Your task to perform on an android device: Find coffee shops on Maps Image 0: 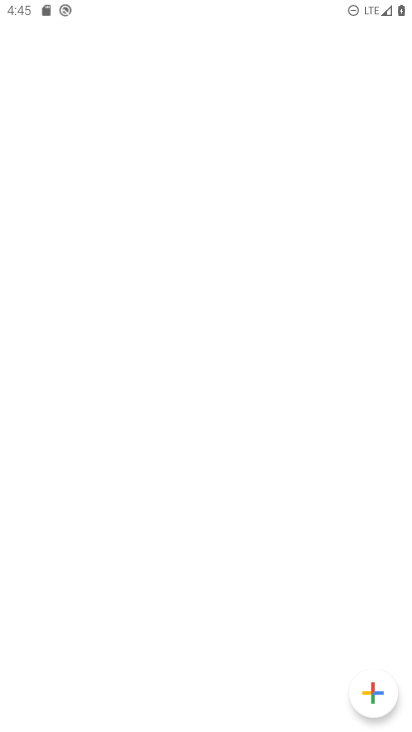
Step 0: drag from (258, 624) to (259, 15)
Your task to perform on an android device: Find coffee shops on Maps Image 1: 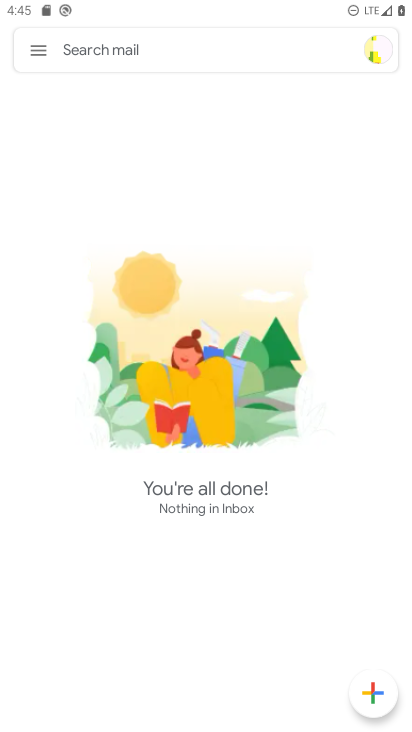
Step 1: press home button
Your task to perform on an android device: Find coffee shops on Maps Image 2: 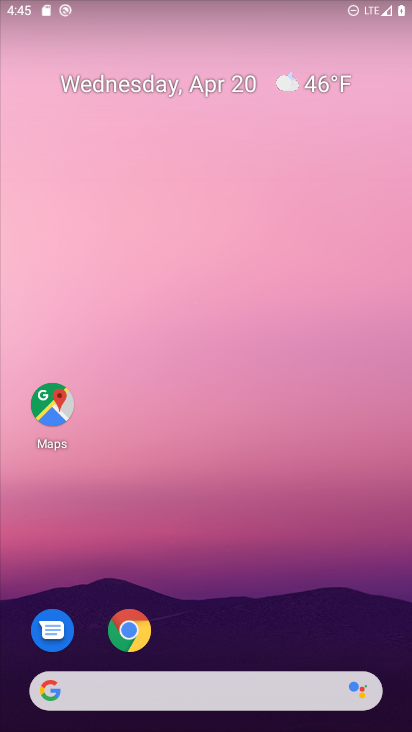
Step 2: drag from (310, 560) to (309, 49)
Your task to perform on an android device: Find coffee shops on Maps Image 3: 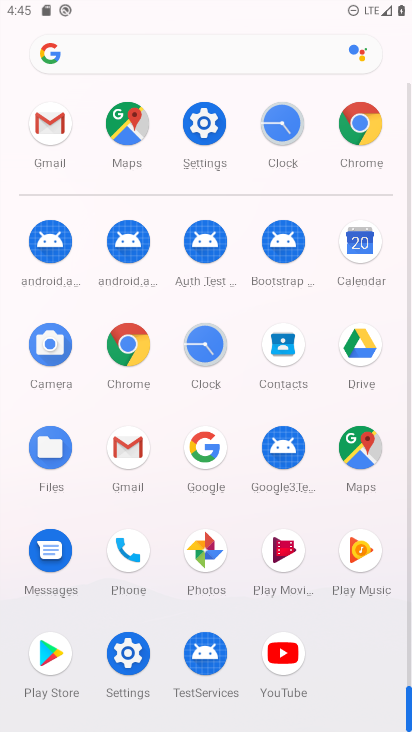
Step 3: click (365, 456)
Your task to perform on an android device: Find coffee shops on Maps Image 4: 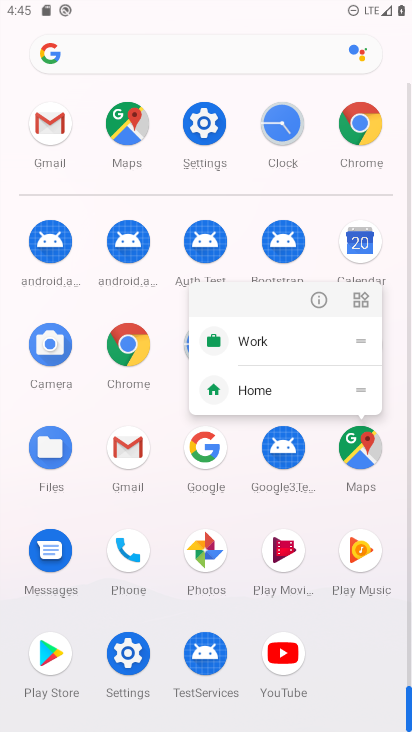
Step 4: click (352, 453)
Your task to perform on an android device: Find coffee shops on Maps Image 5: 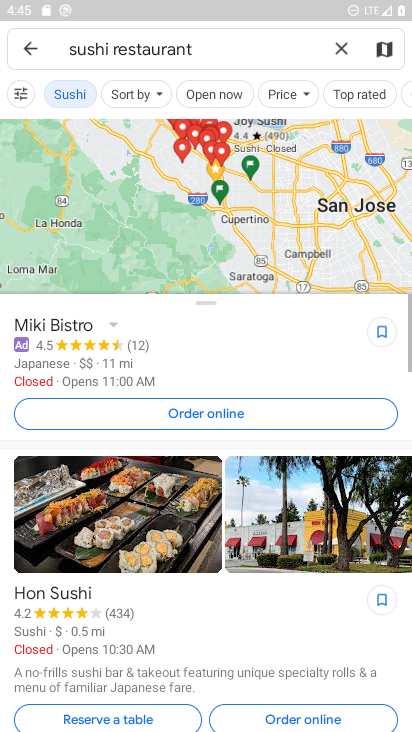
Step 5: click (303, 50)
Your task to perform on an android device: Find coffee shops on Maps Image 6: 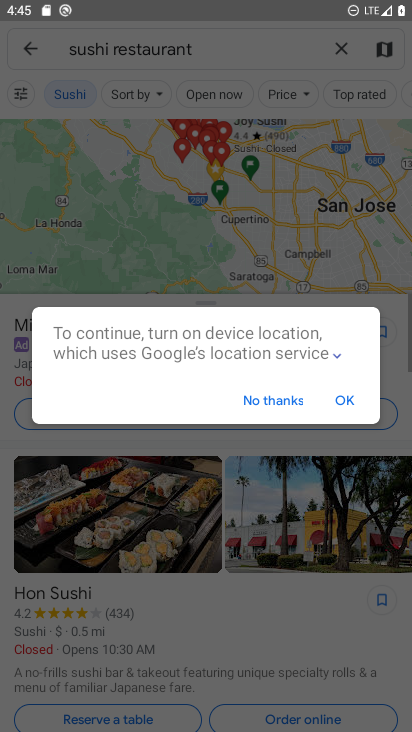
Step 6: click (300, 404)
Your task to perform on an android device: Find coffee shops on Maps Image 7: 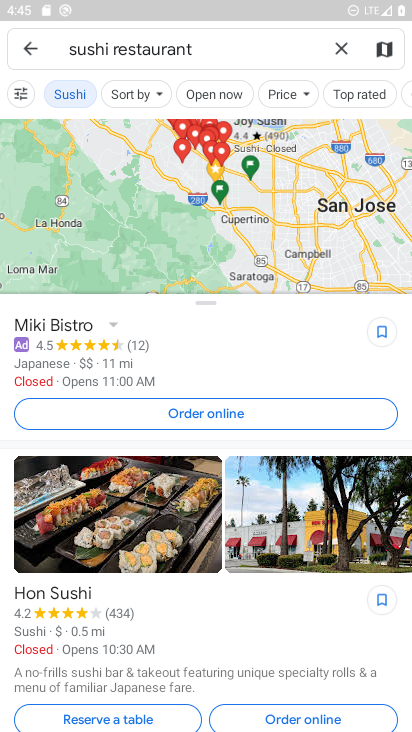
Step 7: click (340, 49)
Your task to perform on an android device: Find coffee shops on Maps Image 8: 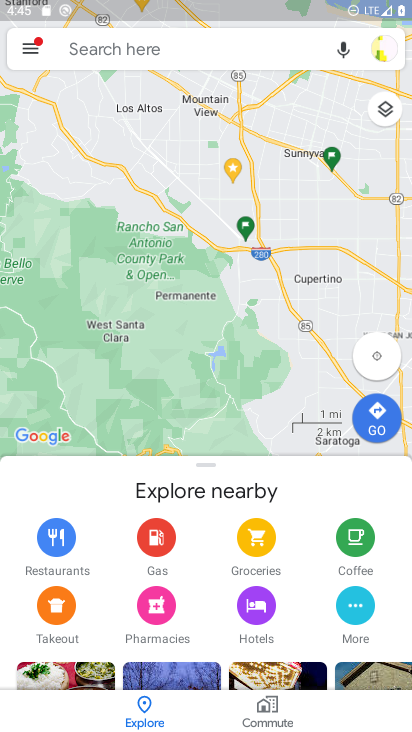
Step 8: click (176, 47)
Your task to perform on an android device: Find coffee shops on Maps Image 9: 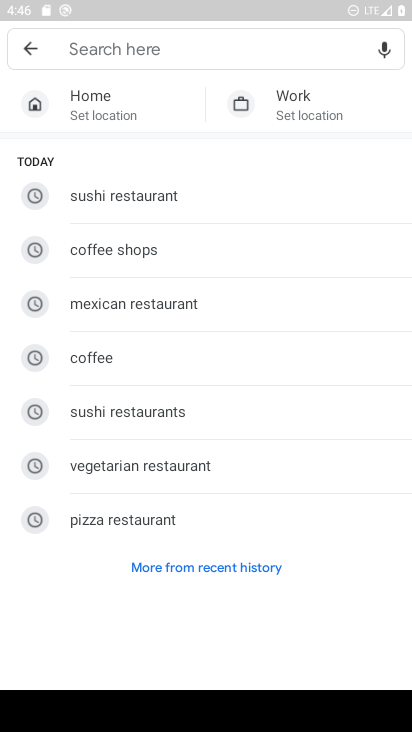
Step 9: type "coffee shops"
Your task to perform on an android device: Find coffee shops on Maps Image 10: 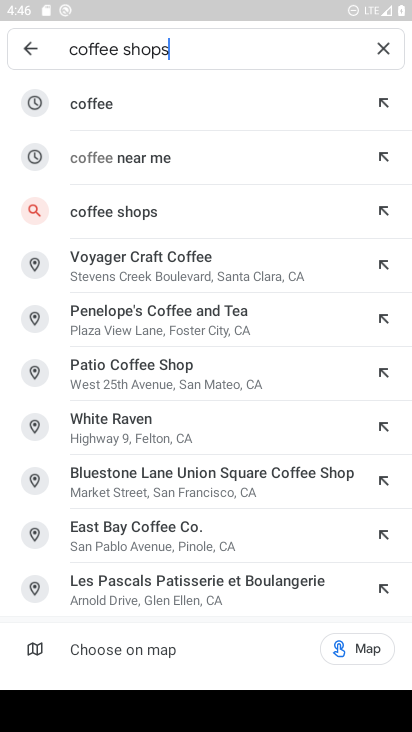
Step 10: click (210, 212)
Your task to perform on an android device: Find coffee shops on Maps Image 11: 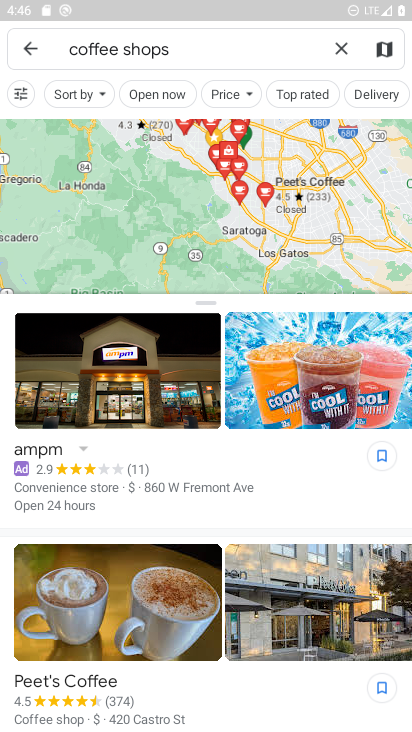
Step 11: task complete